Your task to perform on an android device: When is my next meeting? Image 0: 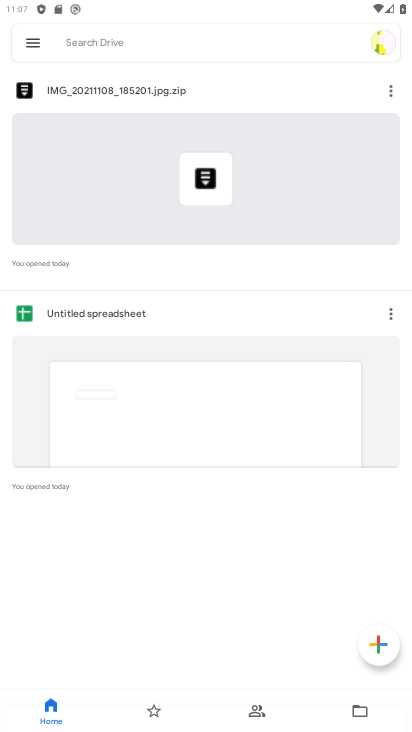
Step 0: press home button
Your task to perform on an android device: When is my next meeting? Image 1: 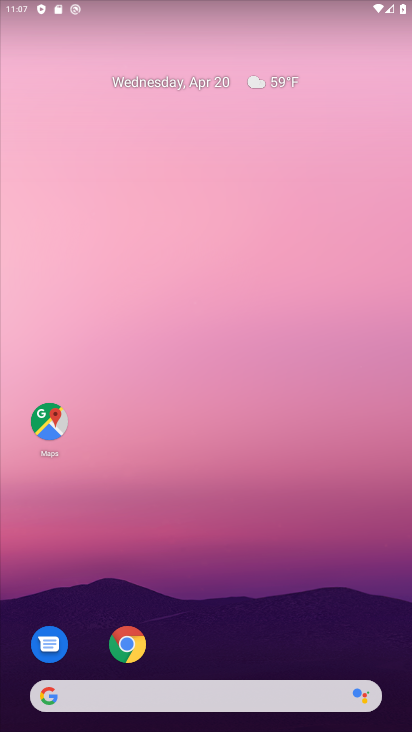
Step 1: drag from (232, 532) to (252, 28)
Your task to perform on an android device: When is my next meeting? Image 2: 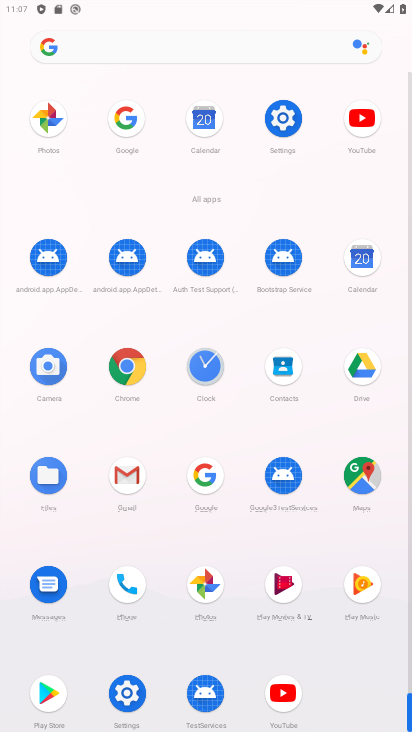
Step 2: click (353, 261)
Your task to perform on an android device: When is my next meeting? Image 3: 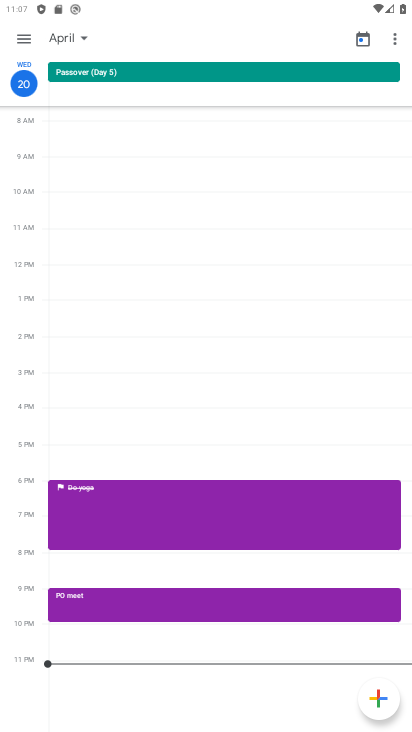
Step 3: drag from (185, 519) to (177, 279)
Your task to perform on an android device: When is my next meeting? Image 4: 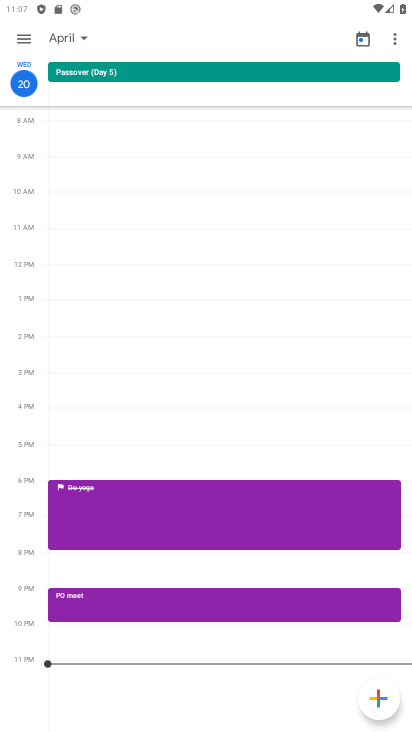
Step 4: drag from (182, 592) to (147, 364)
Your task to perform on an android device: When is my next meeting? Image 5: 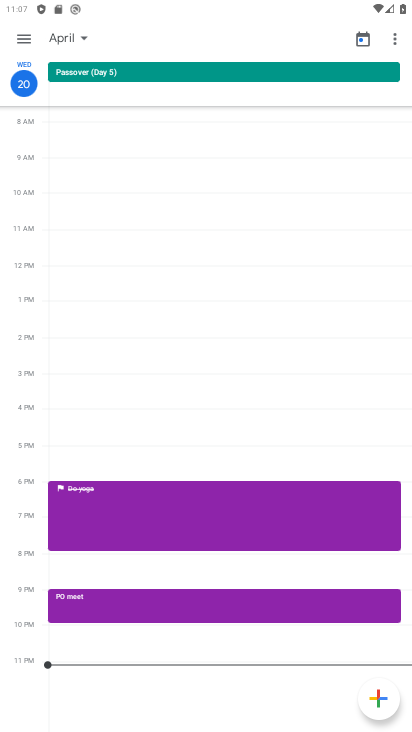
Step 5: click (159, 609)
Your task to perform on an android device: When is my next meeting? Image 6: 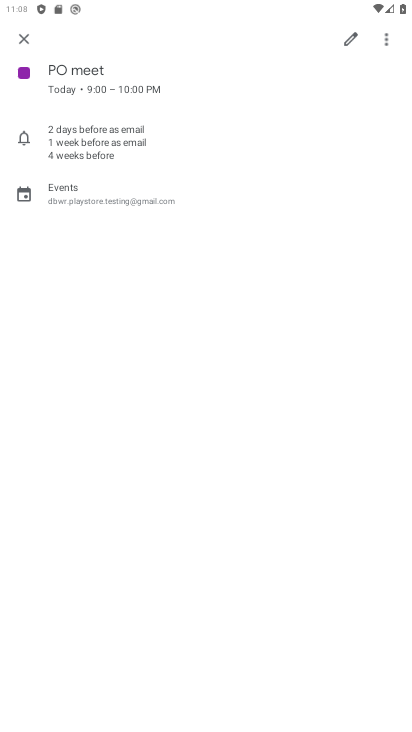
Step 6: task complete